Your task to perform on an android device: Show me popular games on the Play Store Image 0: 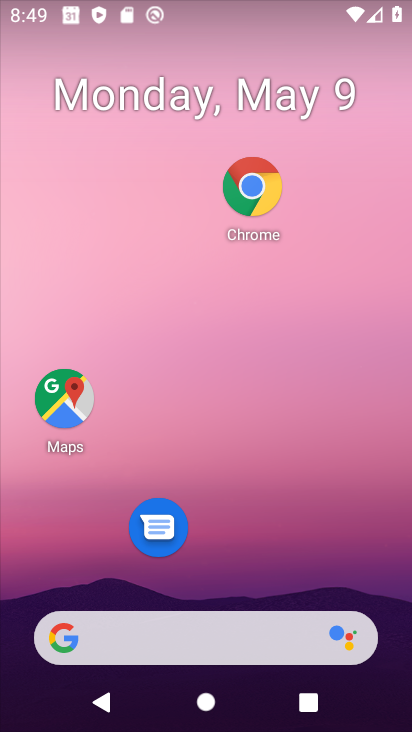
Step 0: drag from (224, 587) to (276, 2)
Your task to perform on an android device: Show me popular games on the Play Store Image 1: 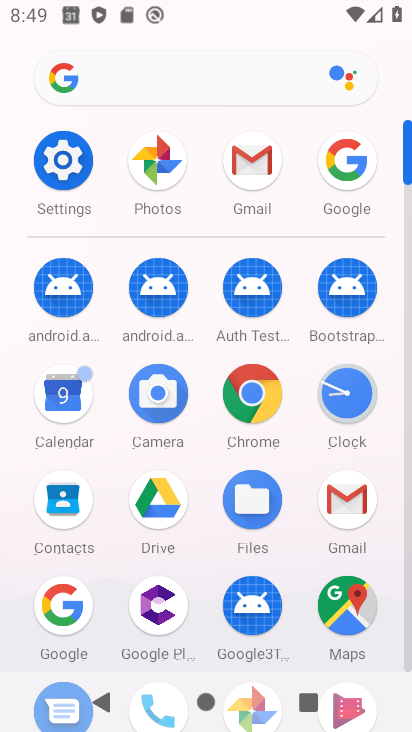
Step 1: drag from (197, 562) to (236, 82)
Your task to perform on an android device: Show me popular games on the Play Store Image 2: 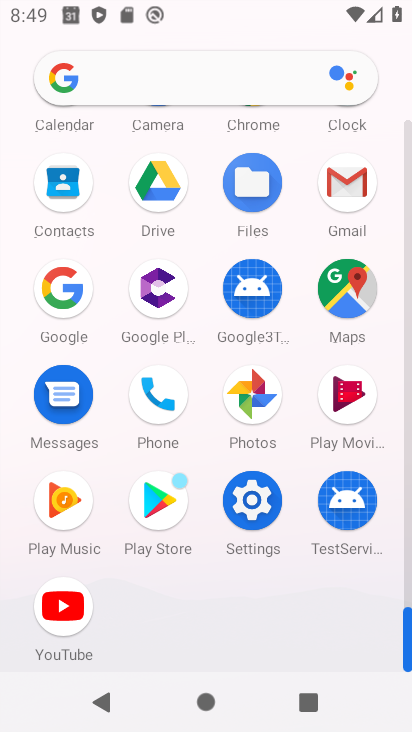
Step 2: click (156, 497)
Your task to perform on an android device: Show me popular games on the Play Store Image 3: 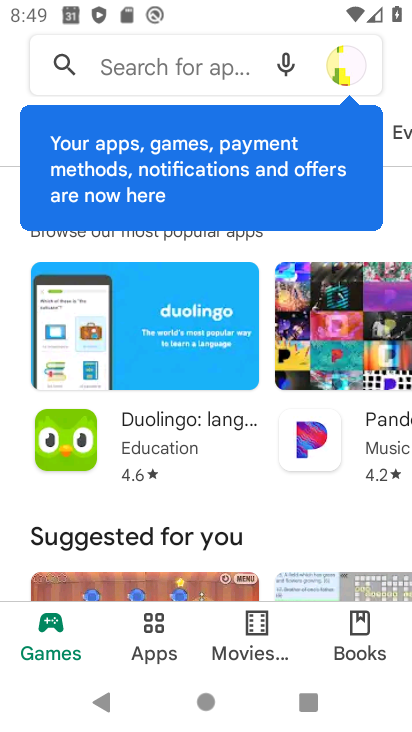
Step 3: drag from (208, 529) to (282, 27)
Your task to perform on an android device: Show me popular games on the Play Store Image 4: 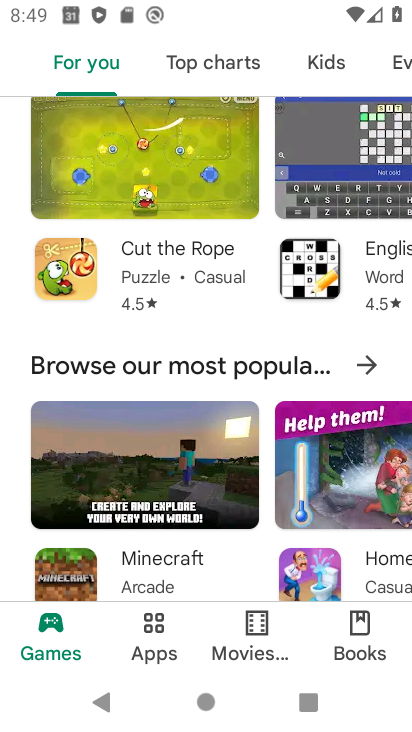
Step 4: click (362, 359)
Your task to perform on an android device: Show me popular games on the Play Store Image 5: 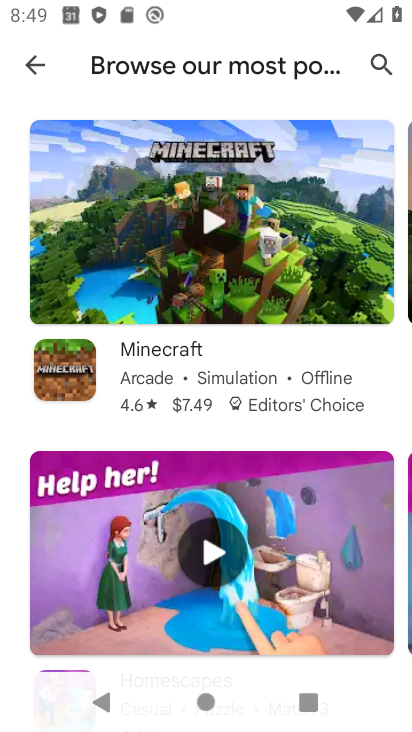
Step 5: task complete